Your task to perform on an android device: Is it going to rain today? Image 0: 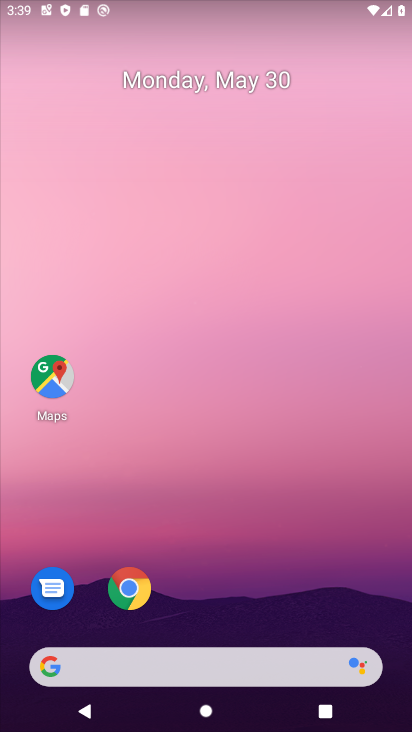
Step 0: drag from (236, 586) to (178, 15)
Your task to perform on an android device: Is it going to rain today? Image 1: 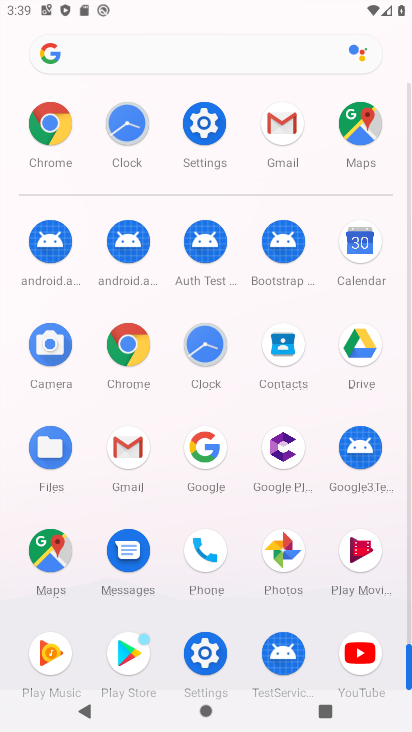
Step 1: drag from (18, 571) to (3, 274)
Your task to perform on an android device: Is it going to rain today? Image 2: 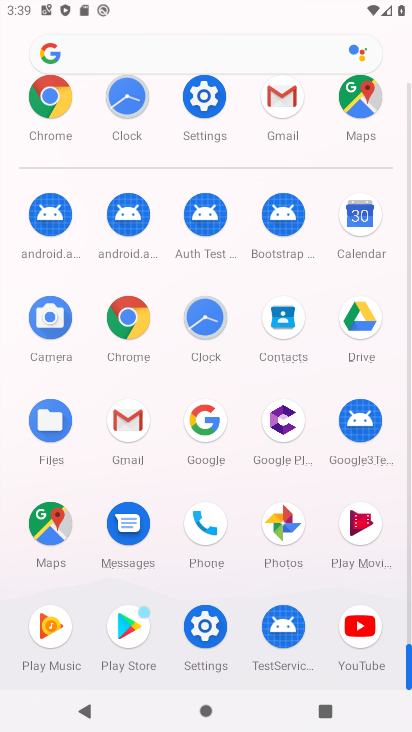
Step 2: click (129, 312)
Your task to perform on an android device: Is it going to rain today? Image 3: 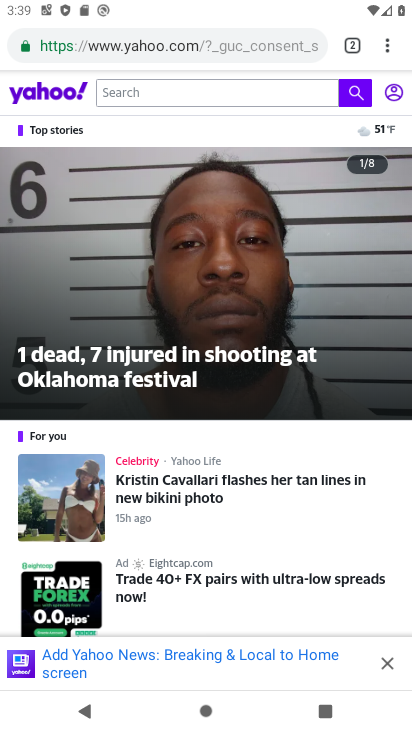
Step 3: click (167, 47)
Your task to perform on an android device: Is it going to rain today? Image 4: 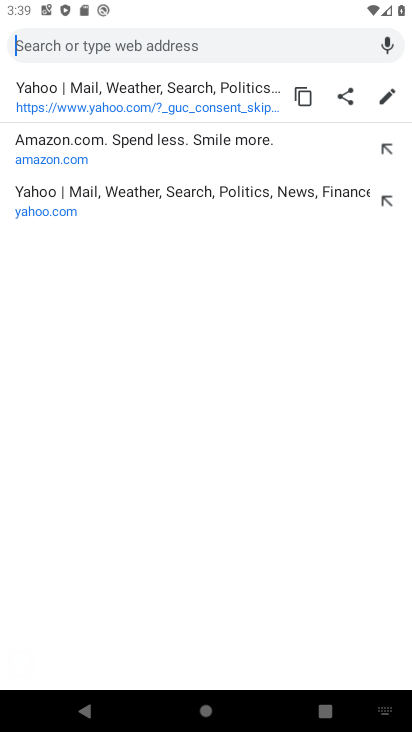
Step 4: type "Is it going to rain today?"
Your task to perform on an android device: Is it going to rain today? Image 5: 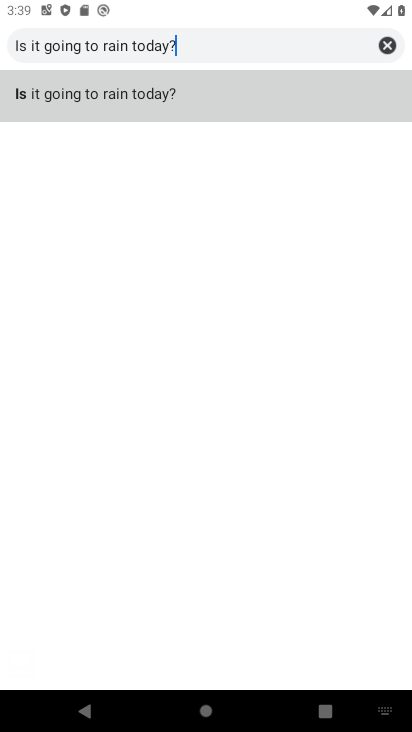
Step 5: type ""
Your task to perform on an android device: Is it going to rain today? Image 6: 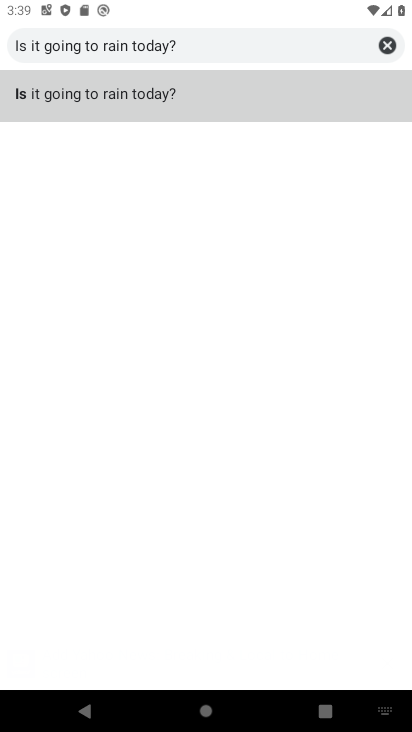
Step 6: click (184, 109)
Your task to perform on an android device: Is it going to rain today? Image 7: 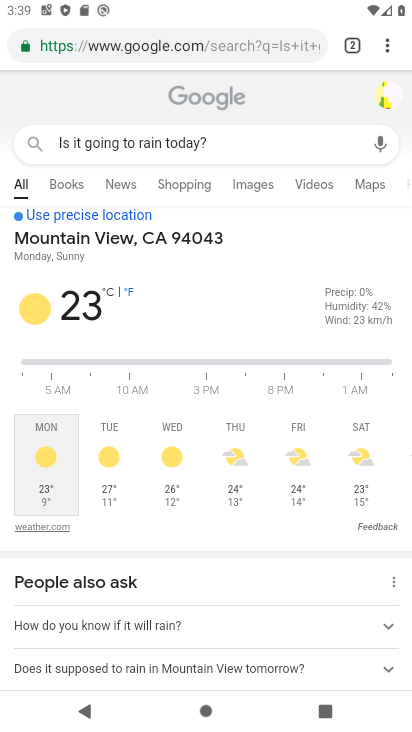
Step 7: task complete